Your task to perform on an android device: Open Chrome and go to the settings page Image 0: 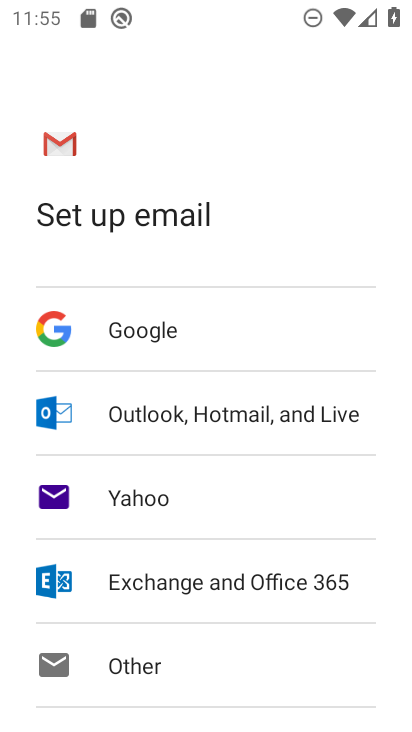
Step 0: press home button
Your task to perform on an android device: Open Chrome and go to the settings page Image 1: 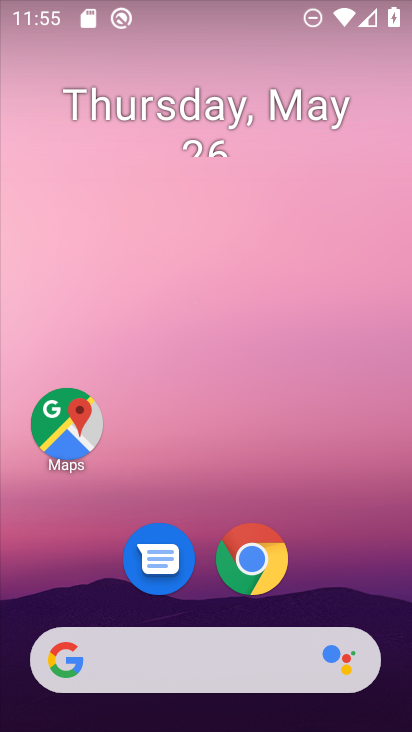
Step 1: click (245, 566)
Your task to perform on an android device: Open Chrome and go to the settings page Image 2: 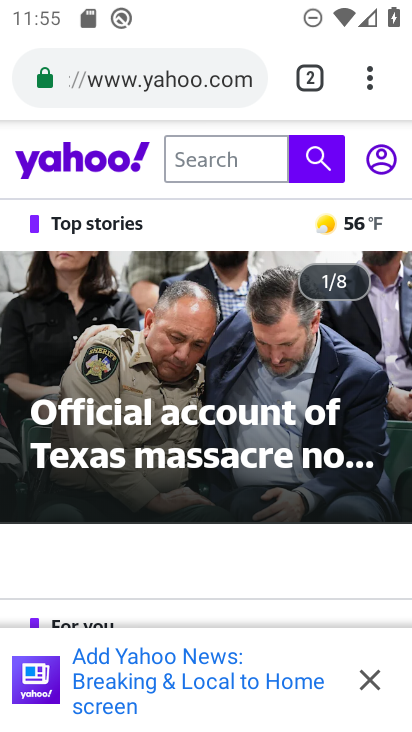
Step 2: click (382, 88)
Your task to perform on an android device: Open Chrome and go to the settings page Image 3: 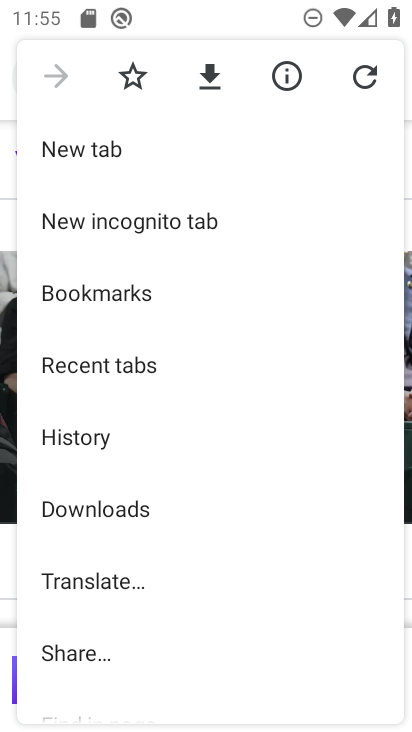
Step 3: drag from (242, 608) to (253, 176)
Your task to perform on an android device: Open Chrome and go to the settings page Image 4: 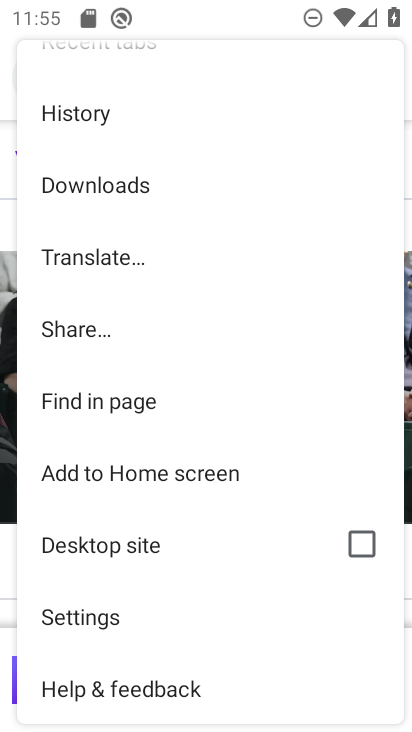
Step 4: click (113, 612)
Your task to perform on an android device: Open Chrome and go to the settings page Image 5: 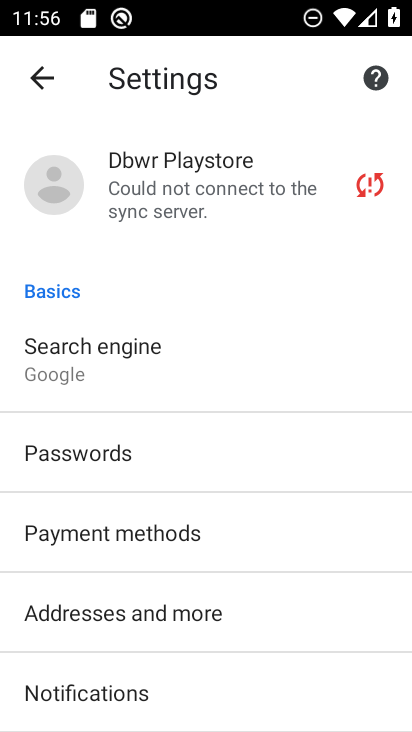
Step 5: task complete